Your task to perform on an android device: toggle sleep mode Image 0: 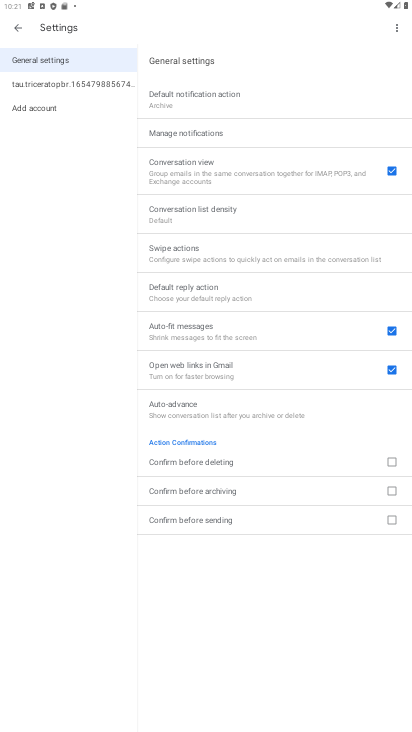
Step 0: press home button
Your task to perform on an android device: toggle sleep mode Image 1: 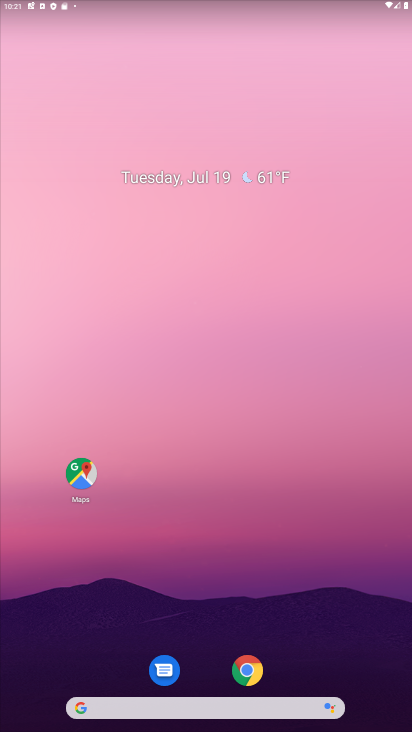
Step 1: drag from (245, 686) to (271, 239)
Your task to perform on an android device: toggle sleep mode Image 2: 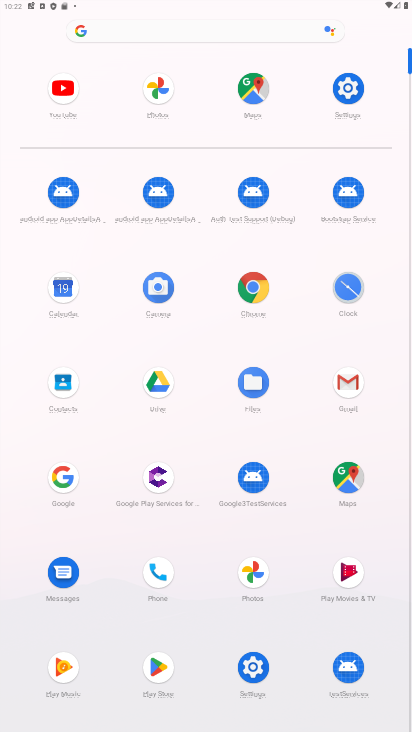
Step 2: click (346, 93)
Your task to perform on an android device: toggle sleep mode Image 3: 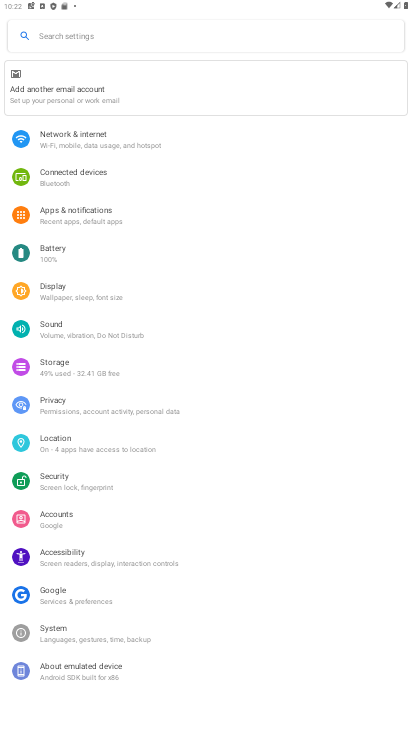
Step 3: click (132, 292)
Your task to perform on an android device: toggle sleep mode Image 4: 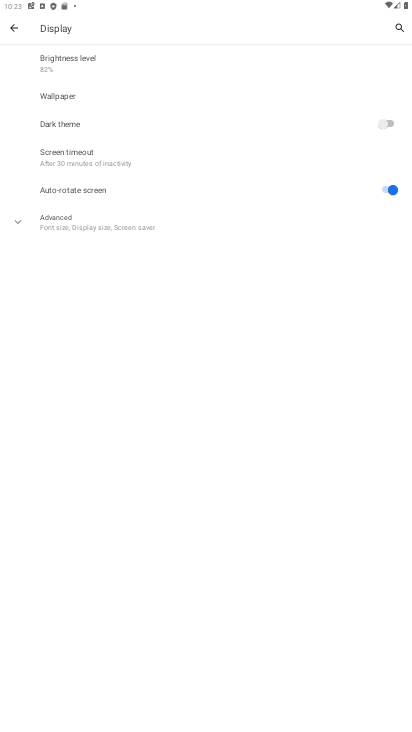
Step 4: task complete